Your task to perform on an android device: change your default location settings in chrome Image 0: 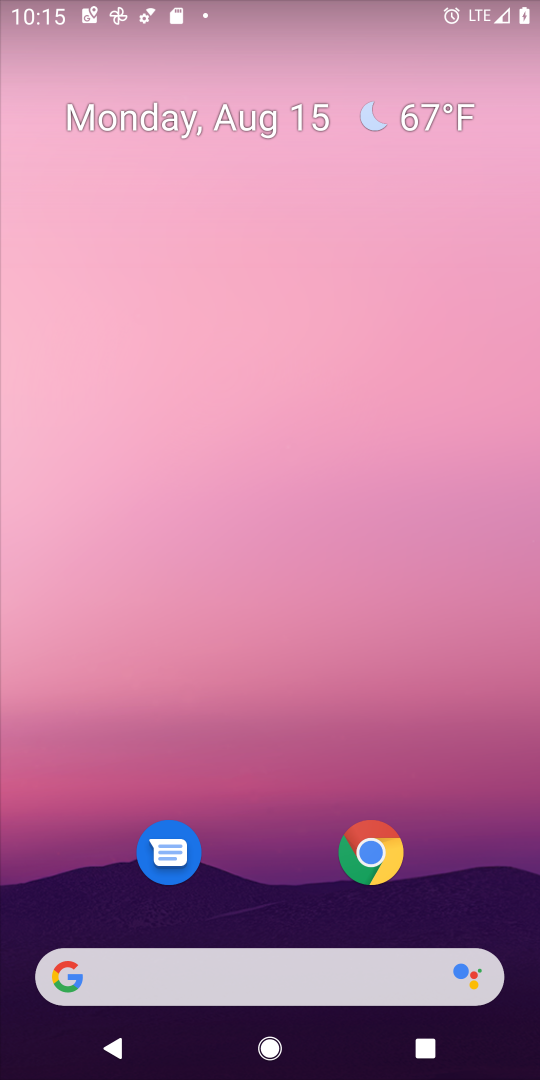
Step 0: click (367, 854)
Your task to perform on an android device: change your default location settings in chrome Image 1: 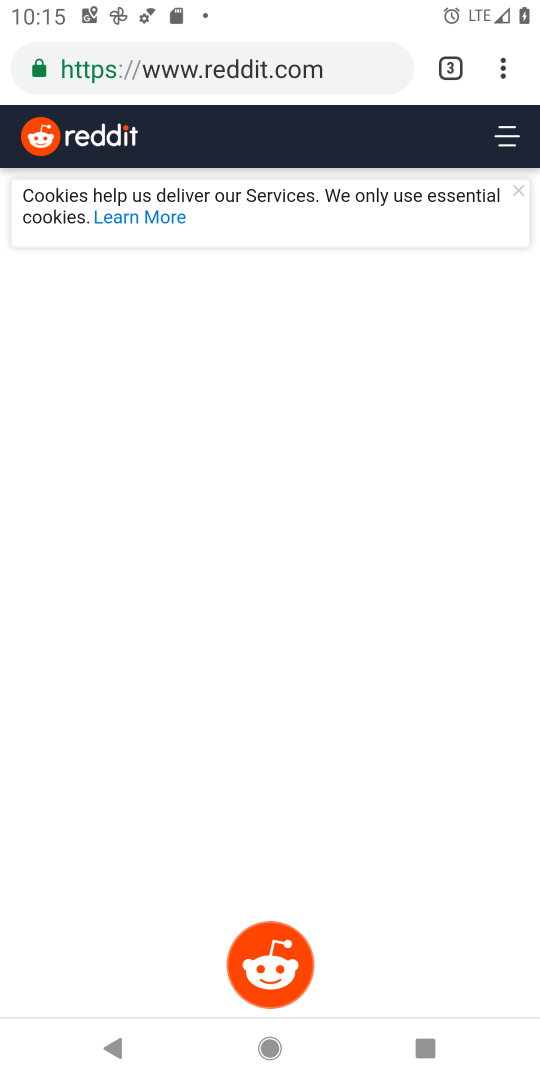
Step 1: click (512, 76)
Your task to perform on an android device: change your default location settings in chrome Image 2: 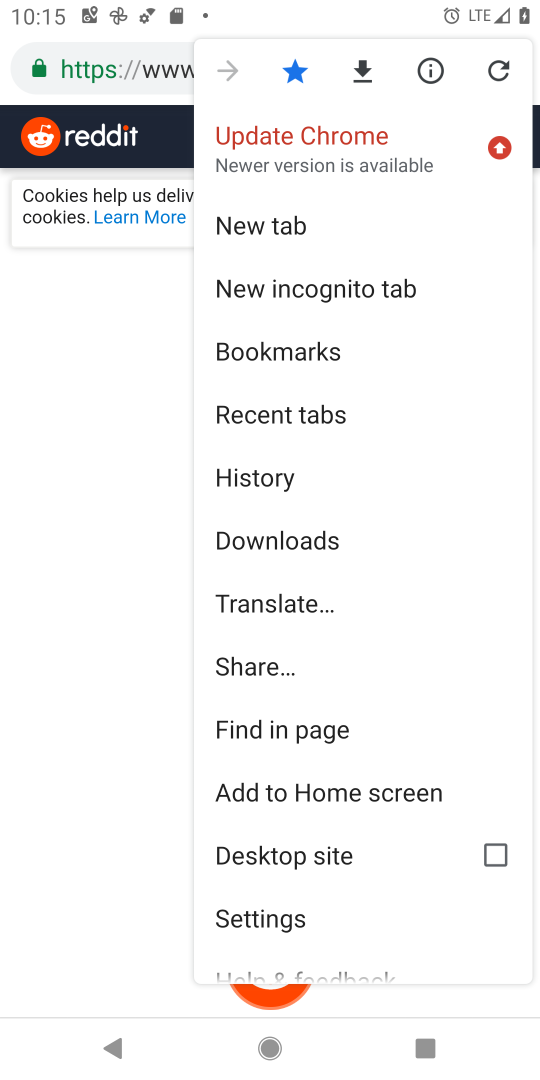
Step 2: click (267, 918)
Your task to perform on an android device: change your default location settings in chrome Image 3: 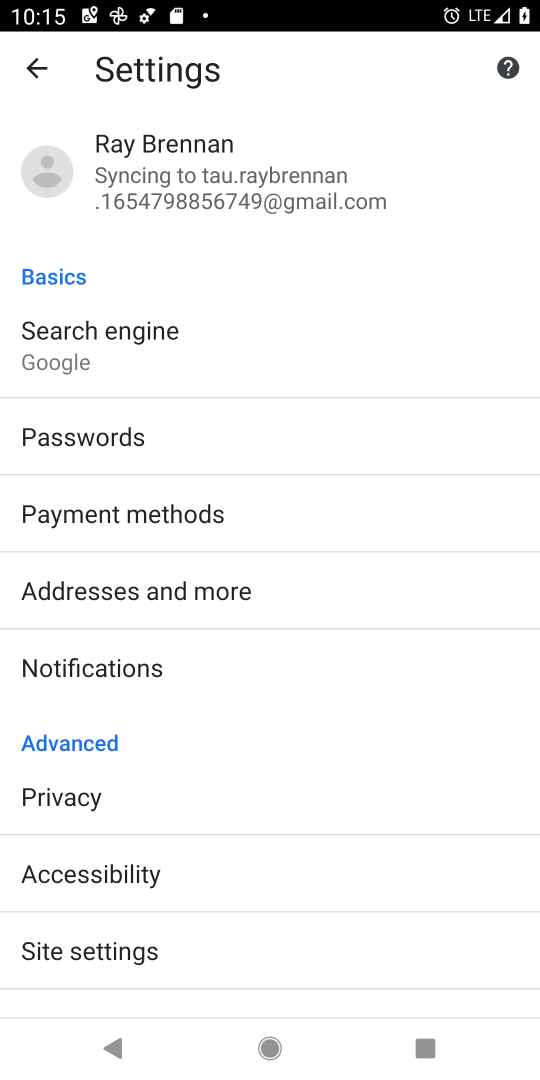
Step 3: drag from (225, 886) to (295, 625)
Your task to perform on an android device: change your default location settings in chrome Image 4: 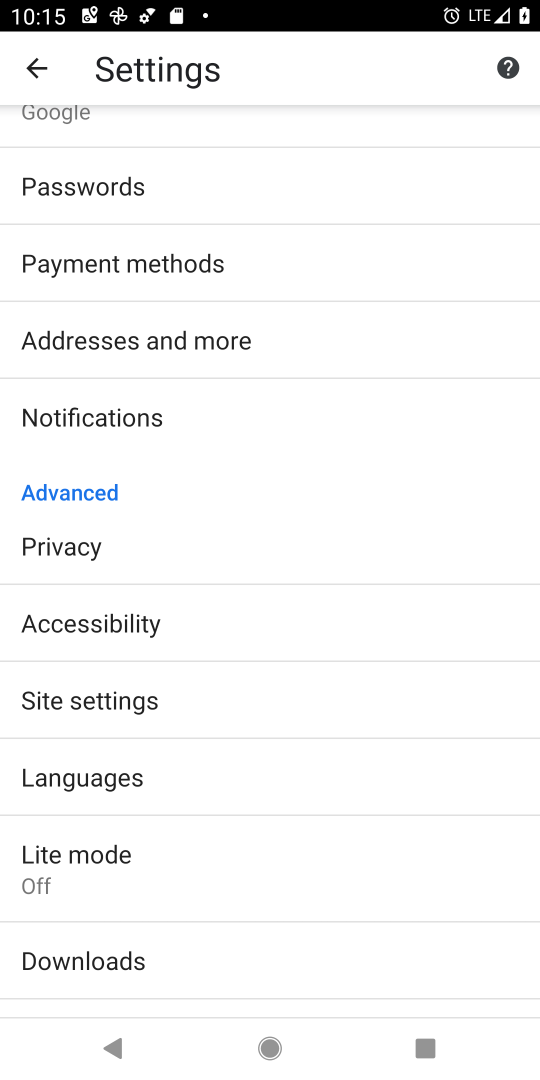
Step 4: click (137, 701)
Your task to perform on an android device: change your default location settings in chrome Image 5: 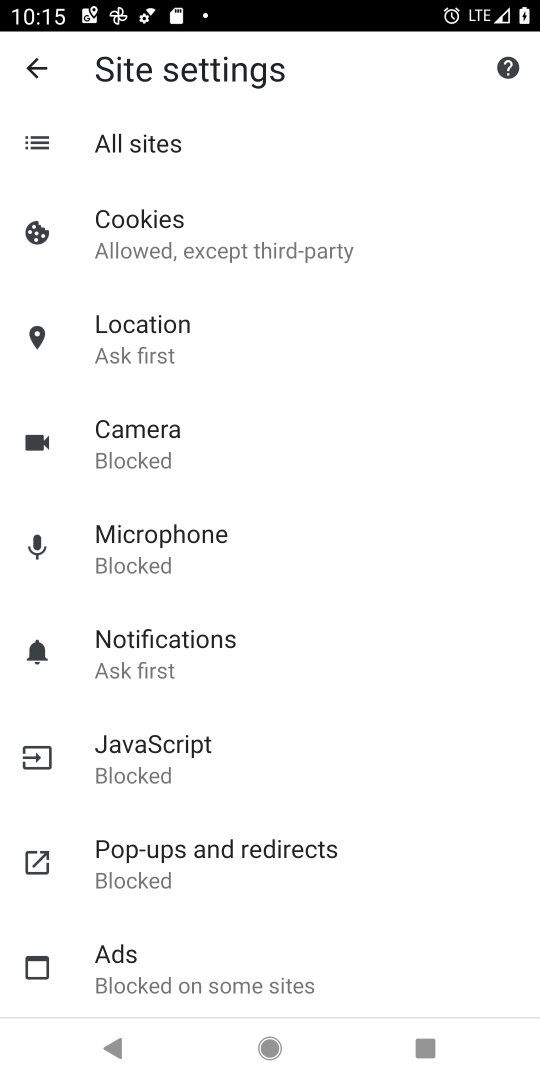
Step 5: click (144, 354)
Your task to perform on an android device: change your default location settings in chrome Image 6: 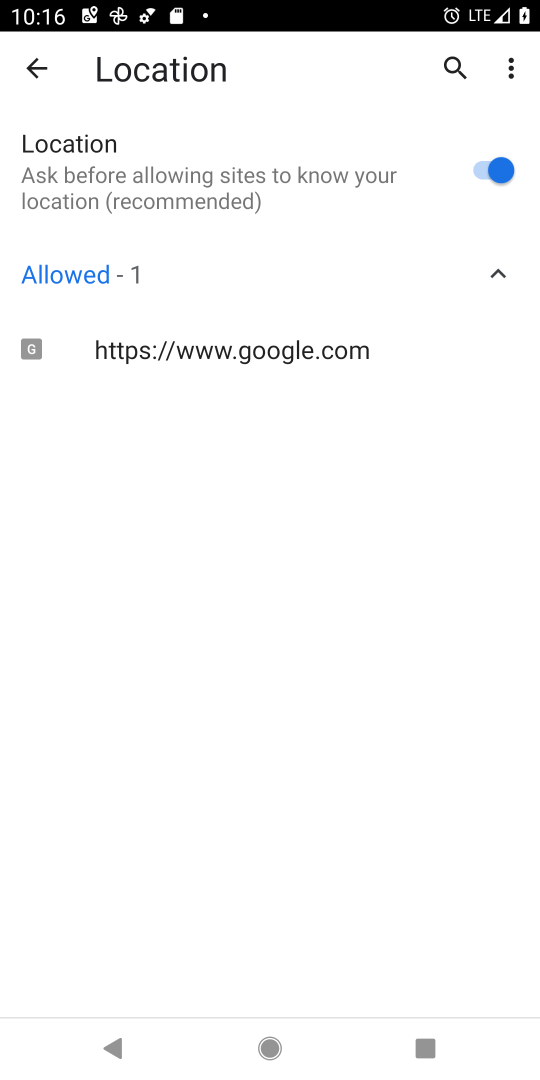
Step 6: click (480, 170)
Your task to perform on an android device: change your default location settings in chrome Image 7: 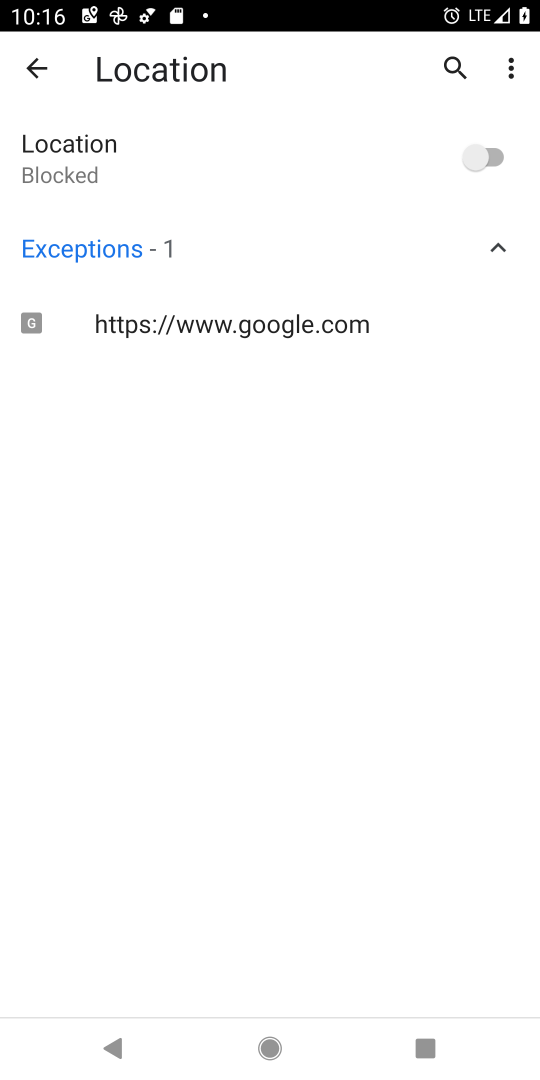
Step 7: task complete